Your task to perform on an android device: turn off improve location accuracy Image 0: 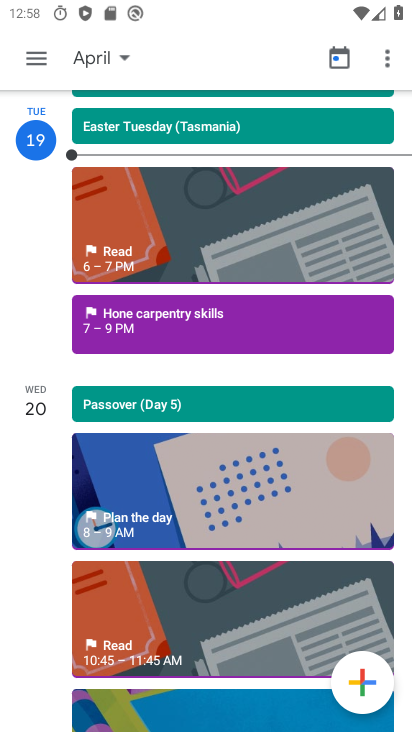
Step 0: task complete